Your task to perform on an android device: change notifications settings Image 0: 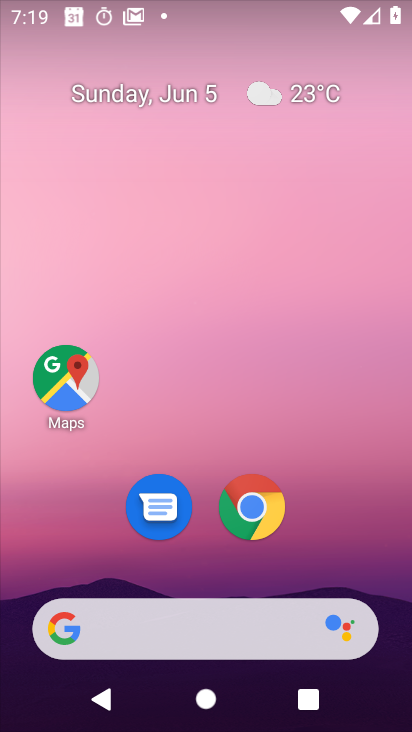
Step 0: drag from (249, 648) to (256, 17)
Your task to perform on an android device: change notifications settings Image 1: 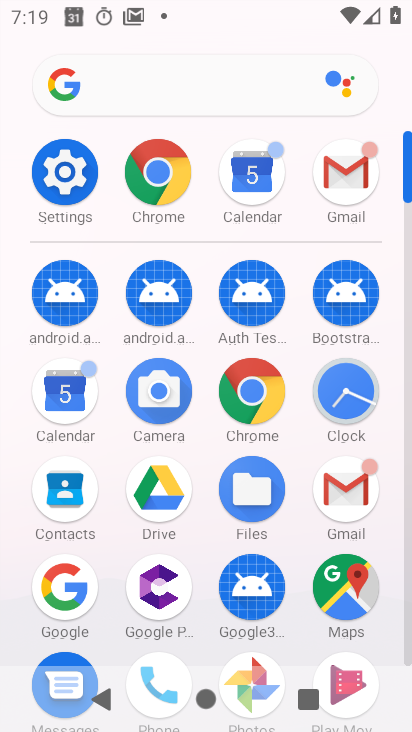
Step 1: click (70, 184)
Your task to perform on an android device: change notifications settings Image 2: 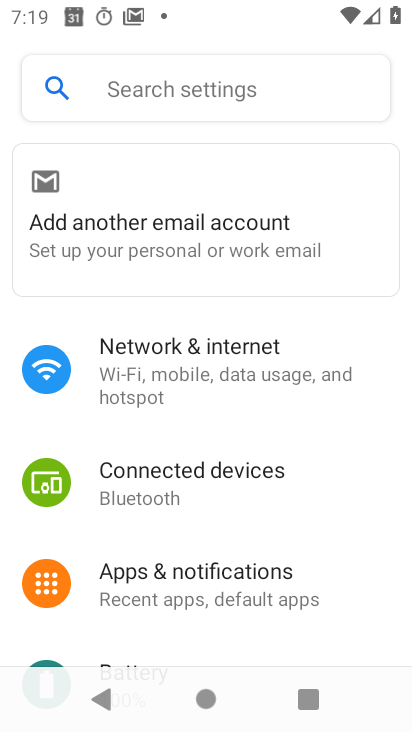
Step 2: click (147, 83)
Your task to perform on an android device: change notifications settings Image 3: 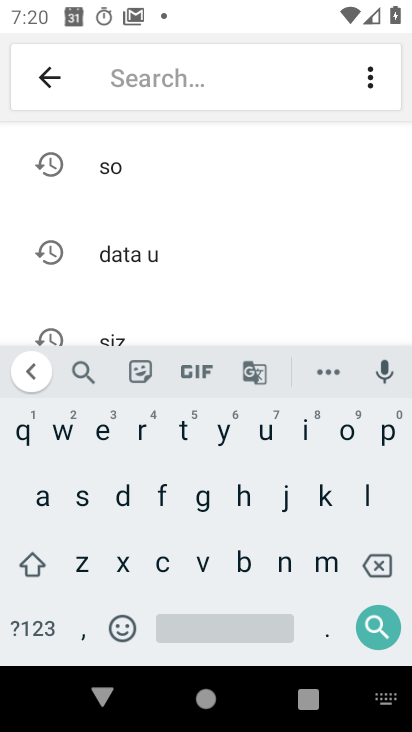
Step 3: click (276, 567)
Your task to perform on an android device: change notifications settings Image 4: 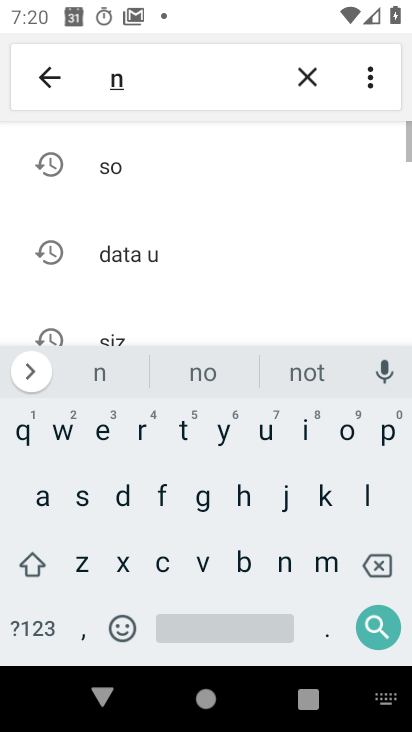
Step 4: click (344, 432)
Your task to perform on an android device: change notifications settings Image 5: 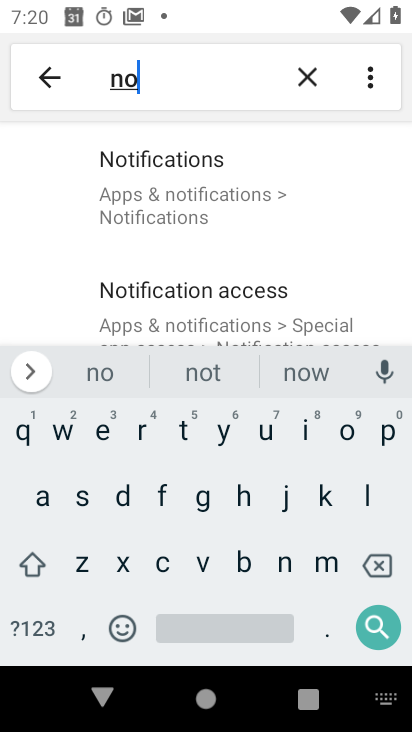
Step 5: click (175, 216)
Your task to perform on an android device: change notifications settings Image 6: 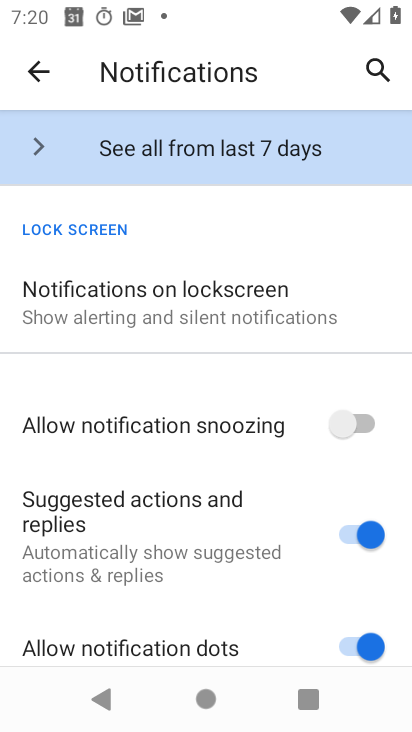
Step 6: click (126, 297)
Your task to perform on an android device: change notifications settings Image 7: 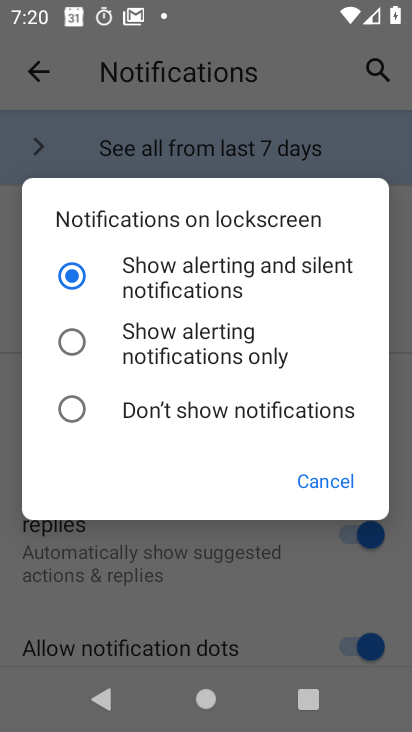
Step 7: task complete